Your task to perform on an android device: change the clock display to show seconds Image 0: 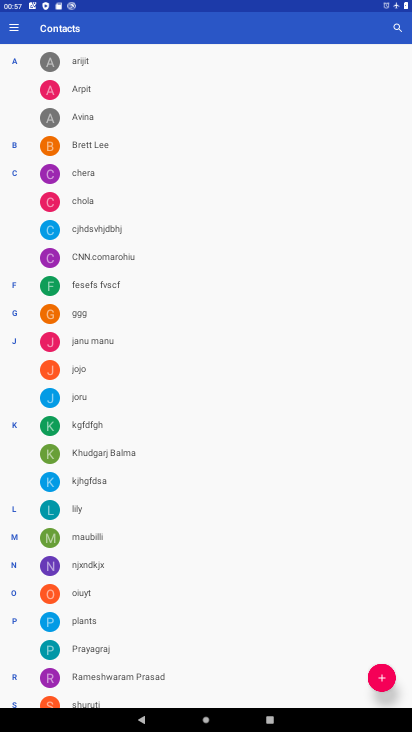
Step 0: press home button
Your task to perform on an android device: change the clock display to show seconds Image 1: 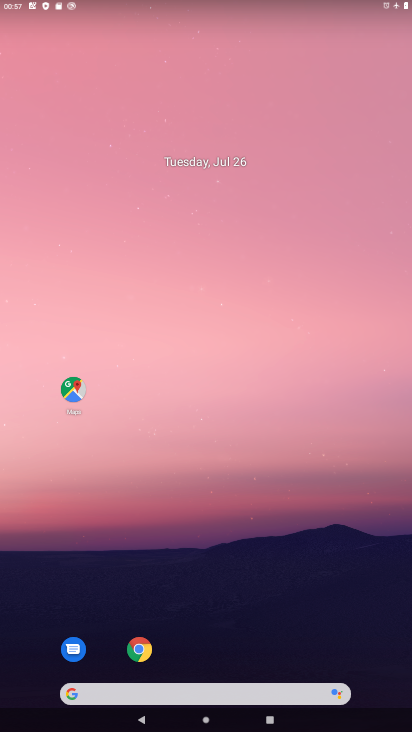
Step 1: drag from (233, 716) to (245, 2)
Your task to perform on an android device: change the clock display to show seconds Image 2: 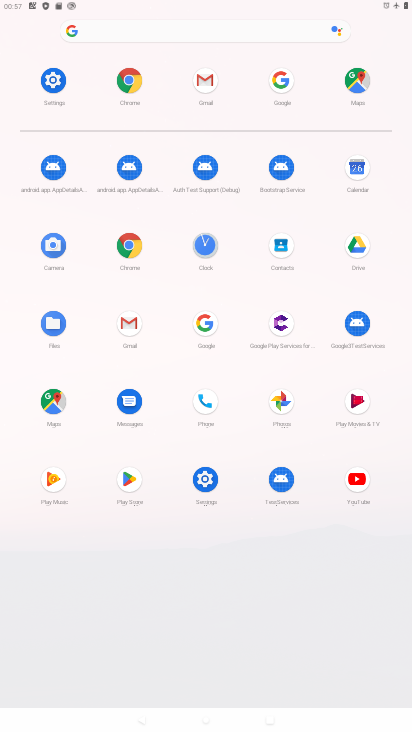
Step 2: click (210, 244)
Your task to perform on an android device: change the clock display to show seconds Image 3: 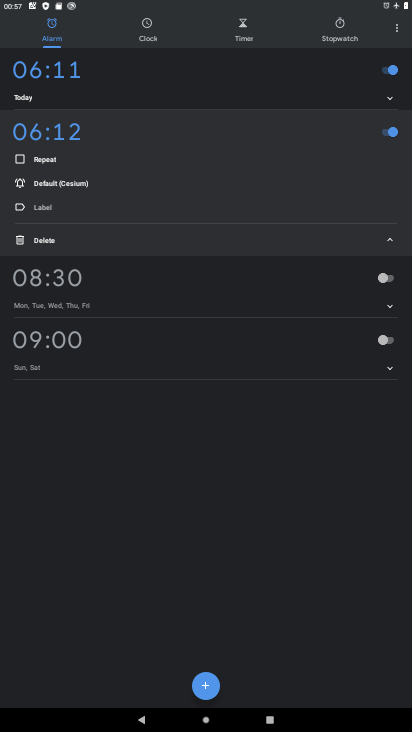
Step 3: click (400, 36)
Your task to perform on an android device: change the clock display to show seconds Image 4: 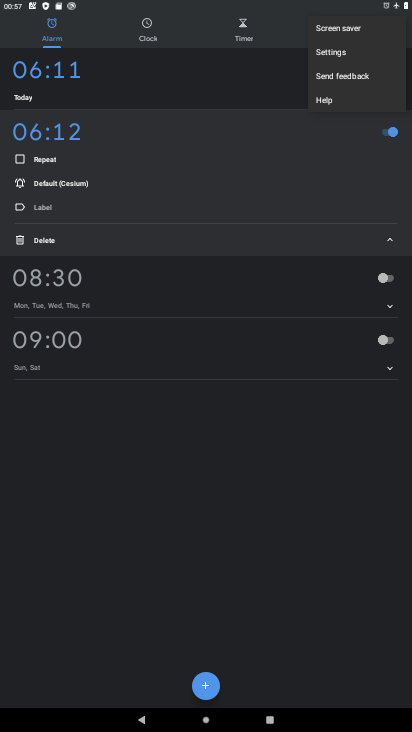
Step 4: click (343, 49)
Your task to perform on an android device: change the clock display to show seconds Image 5: 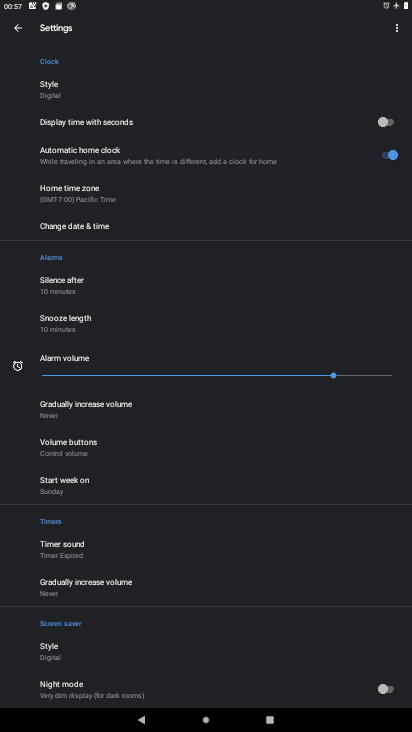
Step 5: click (390, 119)
Your task to perform on an android device: change the clock display to show seconds Image 6: 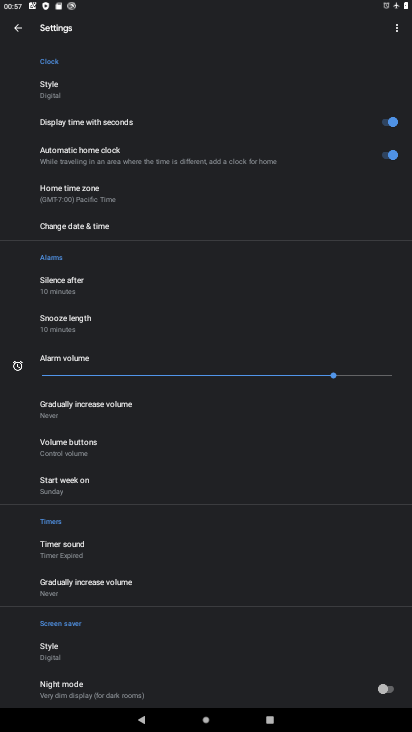
Step 6: task complete